Your task to perform on an android device: Search for vegetarian restaurants on Maps Image 0: 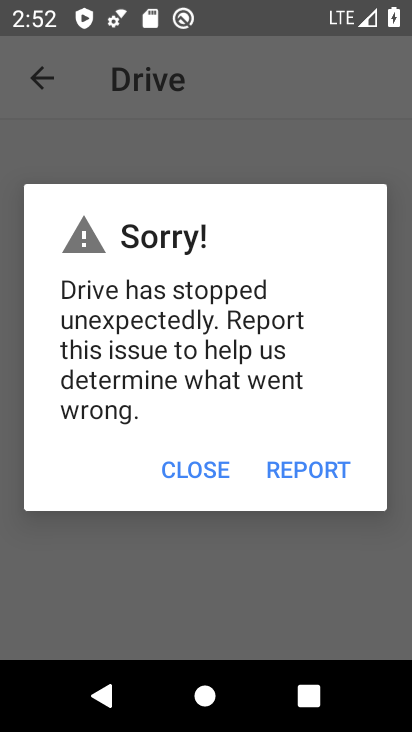
Step 0: press home button
Your task to perform on an android device: Search for vegetarian restaurants on Maps Image 1: 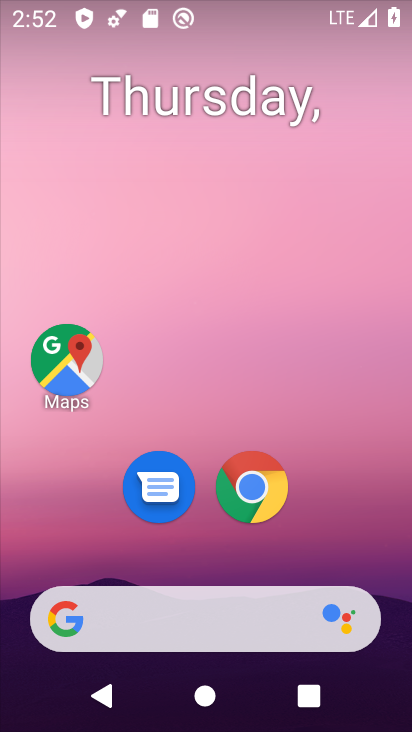
Step 1: click (79, 366)
Your task to perform on an android device: Search for vegetarian restaurants on Maps Image 2: 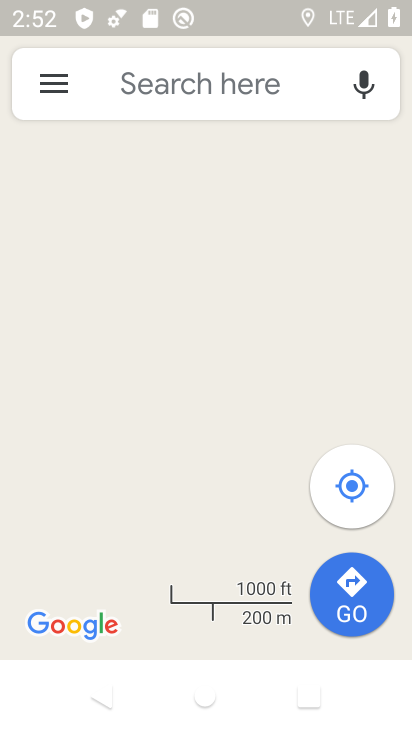
Step 2: click (160, 85)
Your task to perform on an android device: Search for vegetarian restaurants on Maps Image 3: 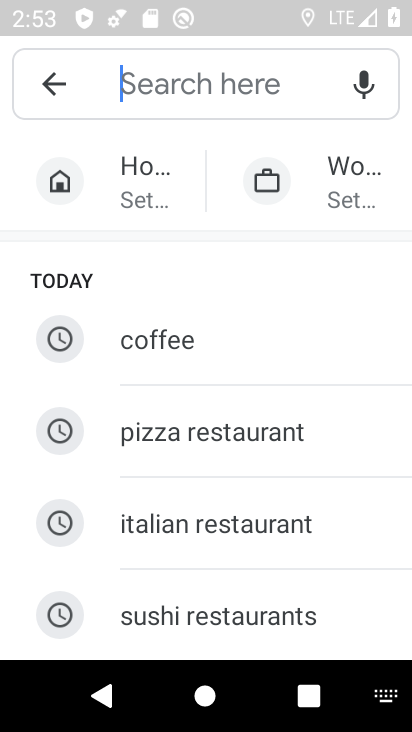
Step 3: type "vegetarian "
Your task to perform on an android device: Search for vegetarian restaurants on Maps Image 4: 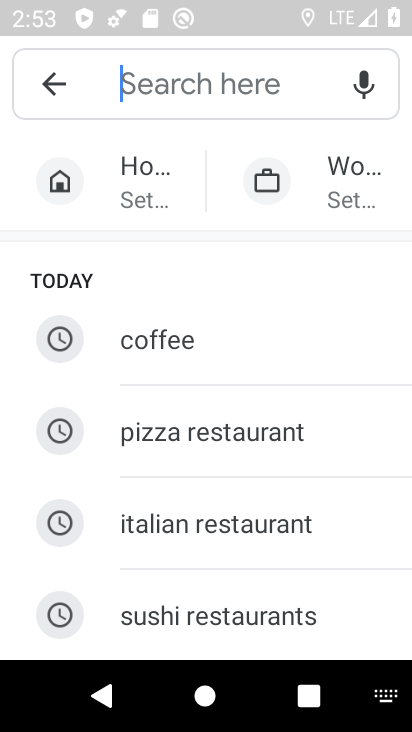
Step 4: click (259, 243)
Your task to perform on an android device: Search for vegetarian restaurants on Maps Image 5: 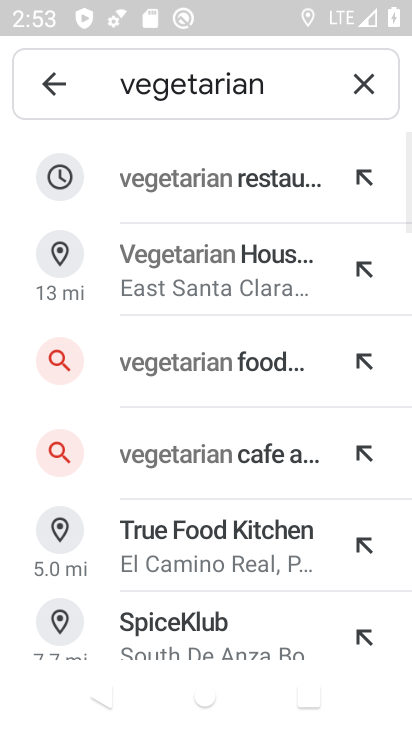
Step 5: click (260, 190)
Your task to perform on an android device: Search for vegetarian restaurants on Maps Image 6: 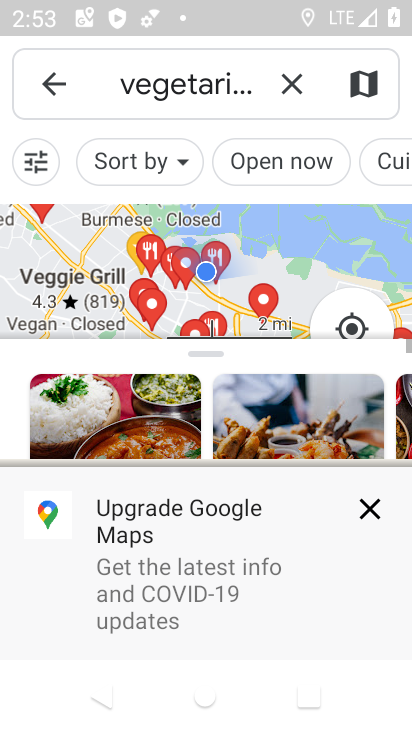
Step 6: task complete